Your task to perform on an android device: create a new album in the google photos Image 0: 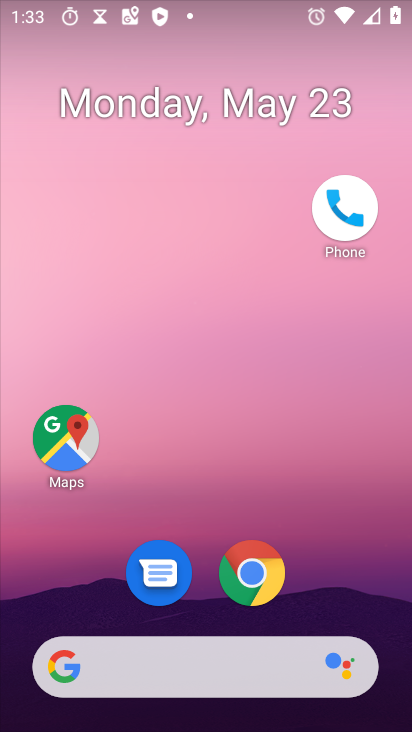
Step 0: press home button
Your task to perform on an android device: create a new album in the google photos Image 1: 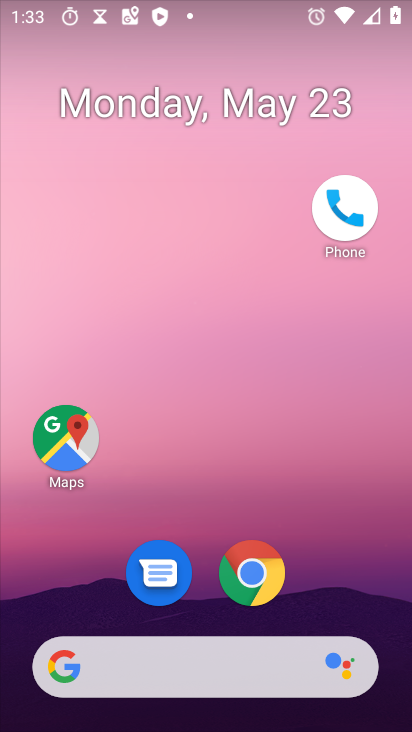
Step 1: drag from (183, 633) to (277, 186)
Your task to perform on an android device: create a new album in the google photos Image 2: 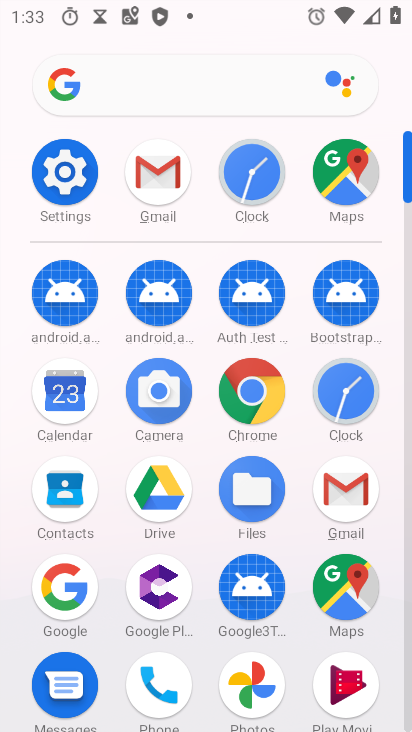
Step 2: click (261, 669)
Your task to perform on an android device: create a new album in the google photos Image 3: 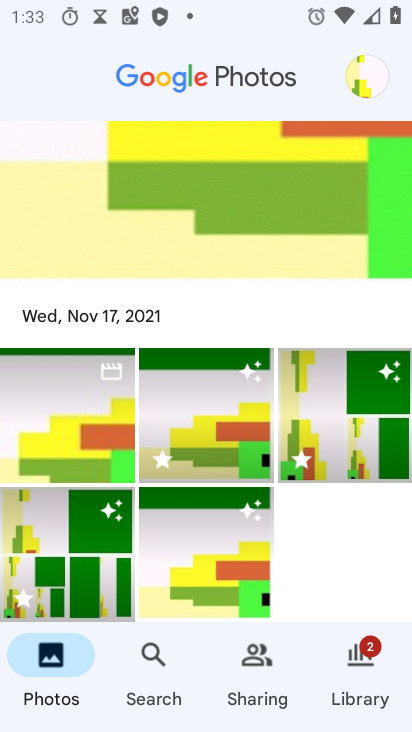
Step 3: click (360, 694)
Your task to perform on an android device: create a new album in the google photos Image 4: 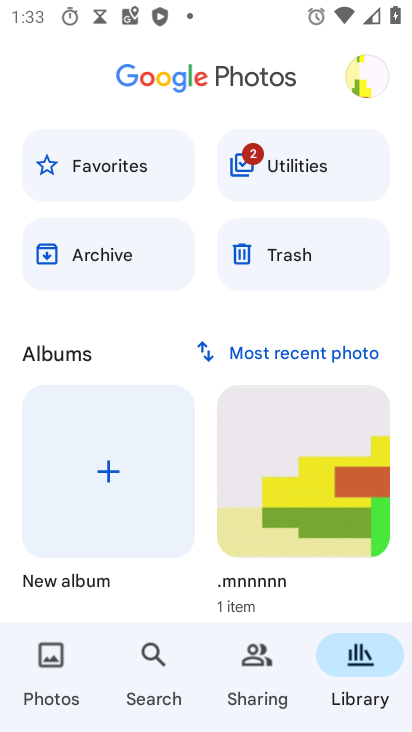
Step 4: click (110, 467)
Your task to perform on an android device: create a new album in the google photos Image 5: 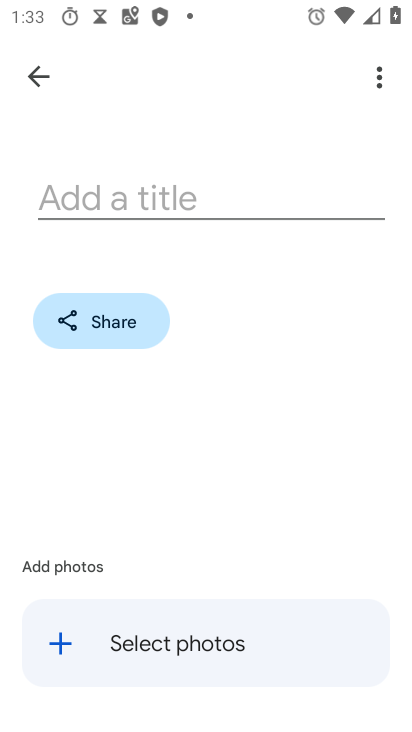
Step 5: drag from (213, 502) to (334, 226)
Your task to perform on an android device: create a new album in the google photos Image 6: 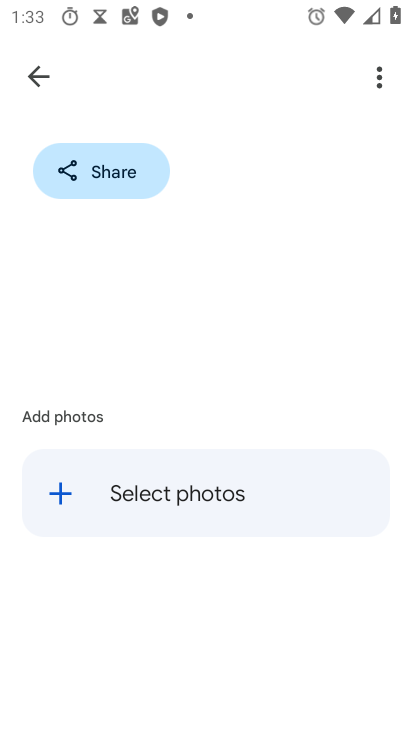
Step 6: click (221, 501)
Your task to perform on an android device: create a new album in the google photos Image 7: 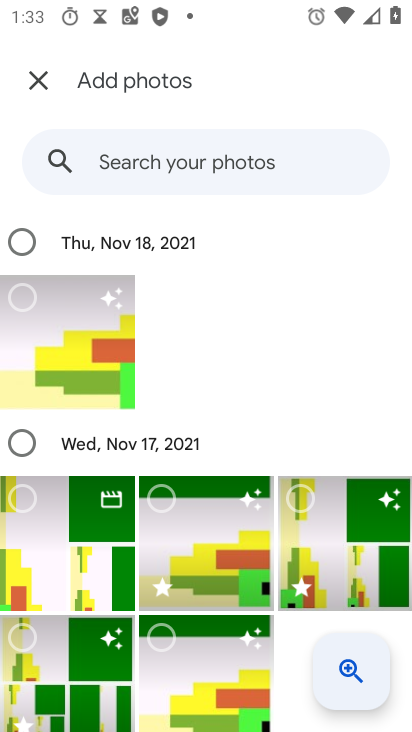
Step 7: click (58, 335)
Your task to perform on an android device: create a new album in the google photos Image 8: 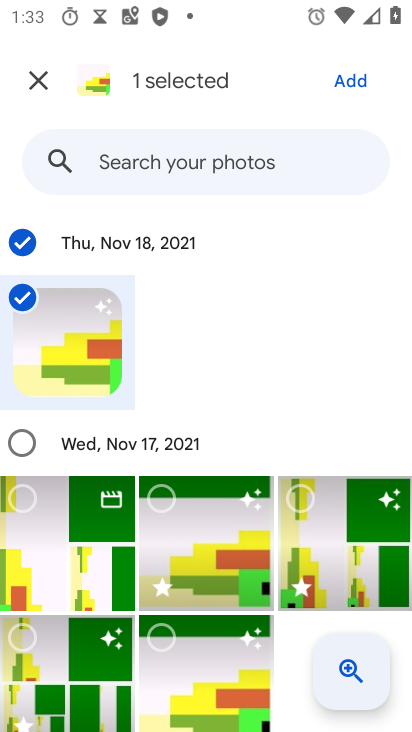
Step 8: drag from (73, 503) to (179, 543)
Your task to perform on an android device: create a new album in the google photos Image 9: 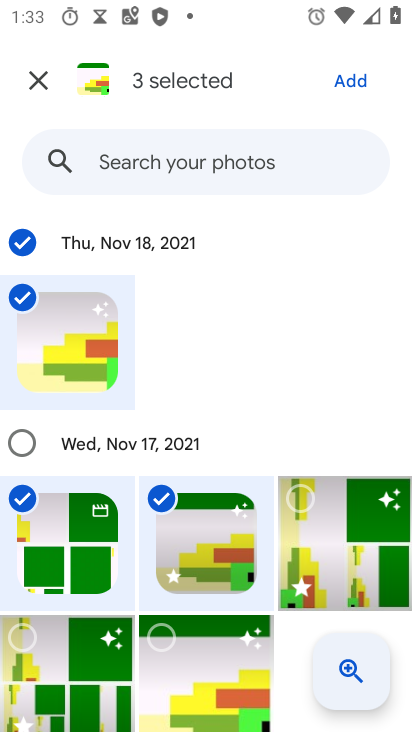
Step 9: click (346, 72)
Your task to perform on an android device: create a new album in the google photos Image 10: 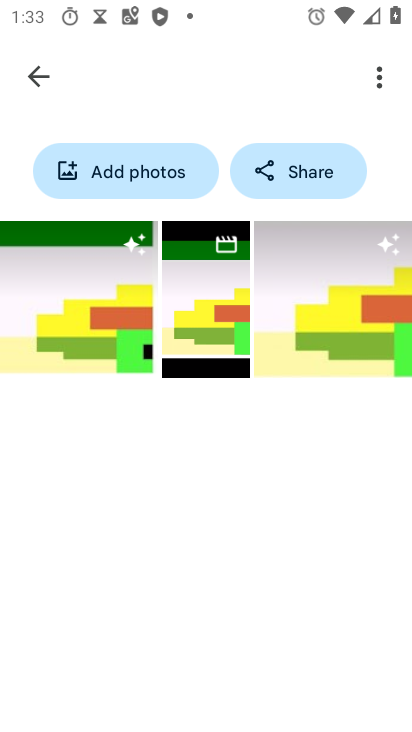
Step 10: task complete